Your task to perform on an android device: Show me popular games on the Play Store Image 0: 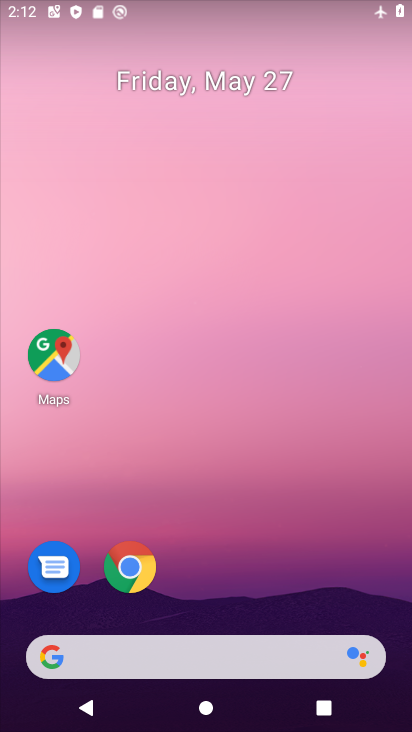
Step 0: drag from (209, 557) to (213, 93)
Your task to perform on an android device: Show me popular games on the Play Store Image 1: 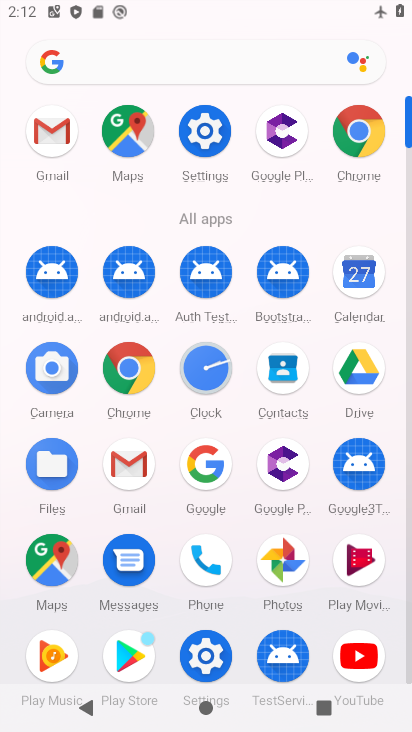
Step 1: click (113, 640)
Your task to perform on an android device: Show me popular games on the Play Store Image 2: 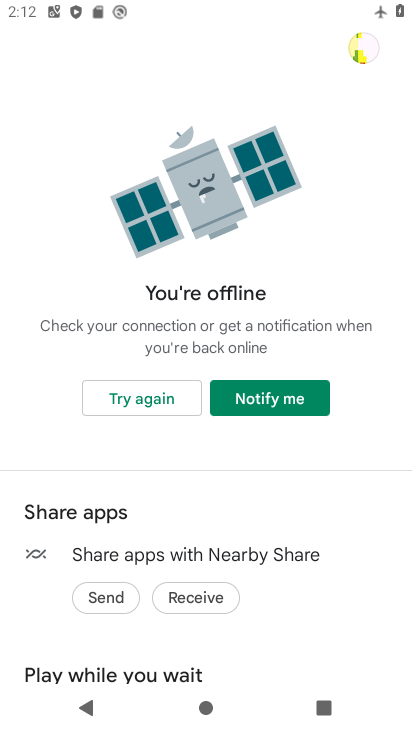
Step 2: click (139, 399)
Your task to perform on an android device: Show me popular games on the Play Store Image 3: 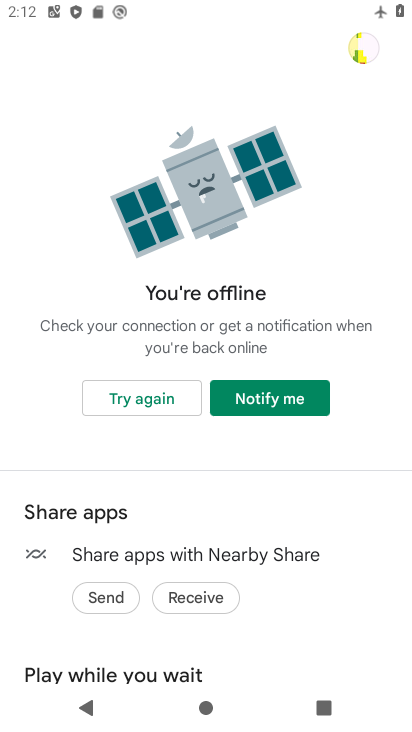
Step 3: task complete